Your task to perform on an android device: turn off airplane mode Image 0: 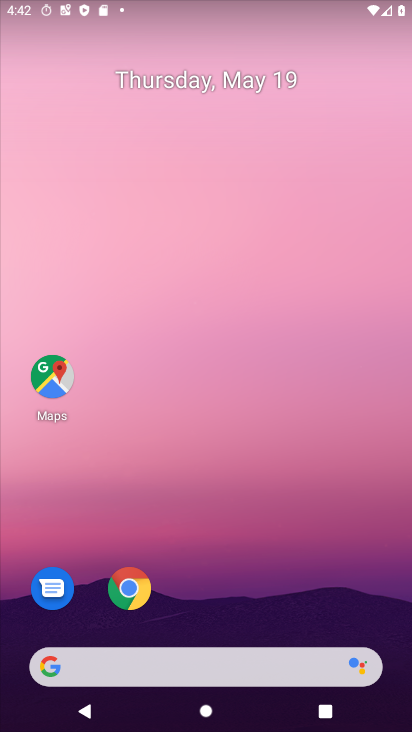
Step 0: drag from (244, 615) to (304, 14)
Your task to perform on an android device: turn off airplane mode Image 1: 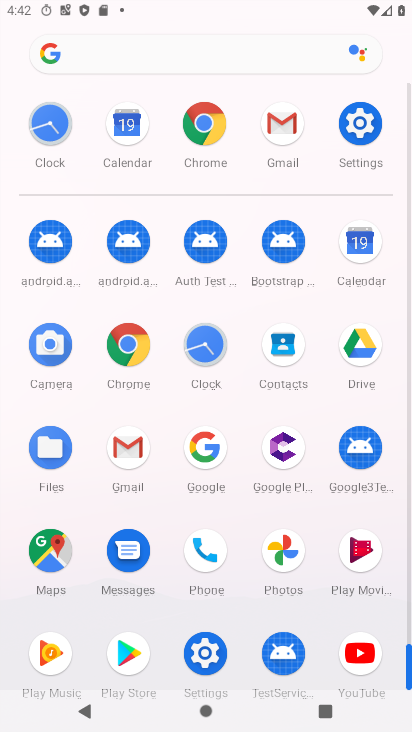
Step 1: click (377, 131)
Your task to perform on an android device: turn off airplane mode Image 2: 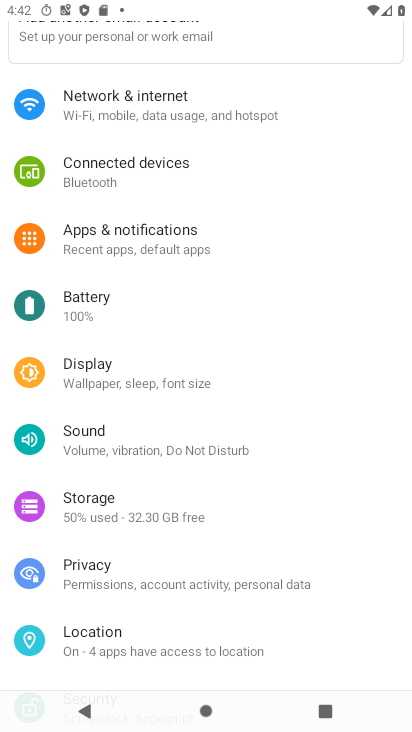
Step 2: click (190, 107)
Your task to perform on an android device: turn off airplane mode Image 3: 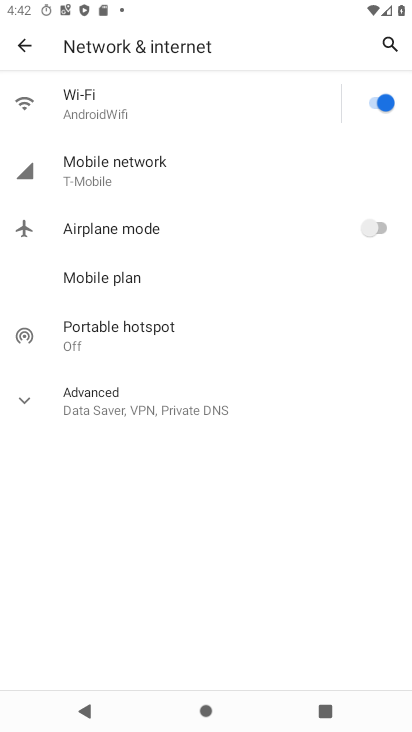
Step 3: task complete